Your task to perform on an android device: turn off airplane mode Image 0: 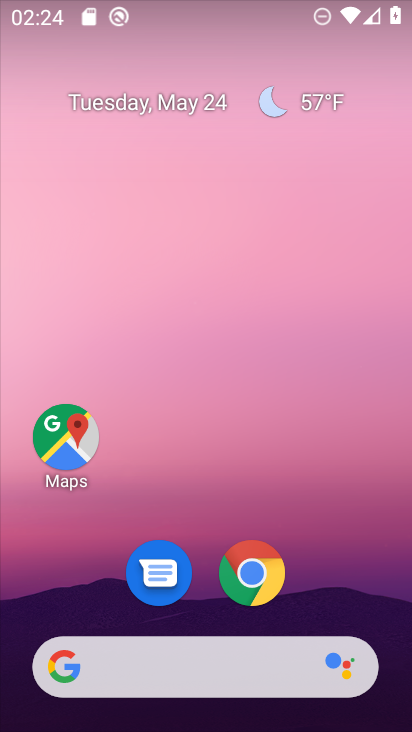
Step 0: drag from (315, 572) to (317, 249)
Your task to perform on an android device: turn off airplane mode Image 1: 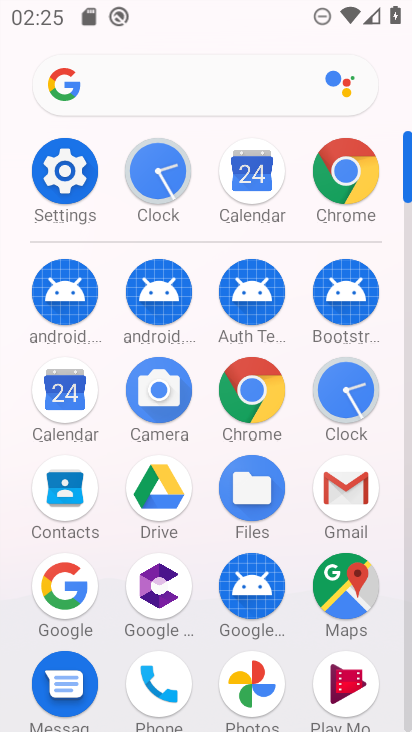
Step 1: click (56, 177)
Your task to perform on an android device: turn off airplane mode Image 2: 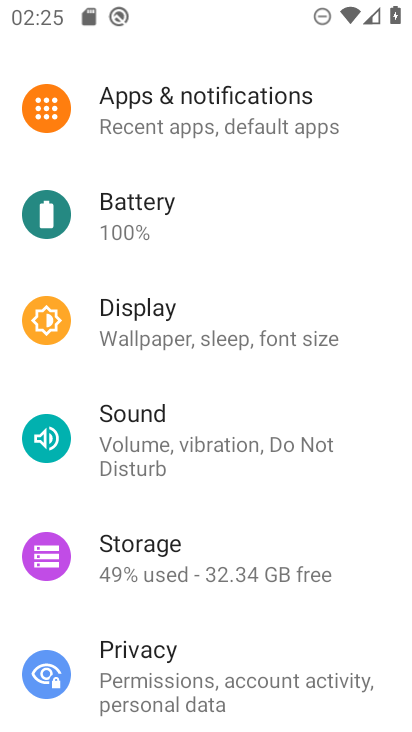
Step 2: drag from (284, 547) to (286, 293)
Your task to perform on an android device: turn off airplane mode Image 3: 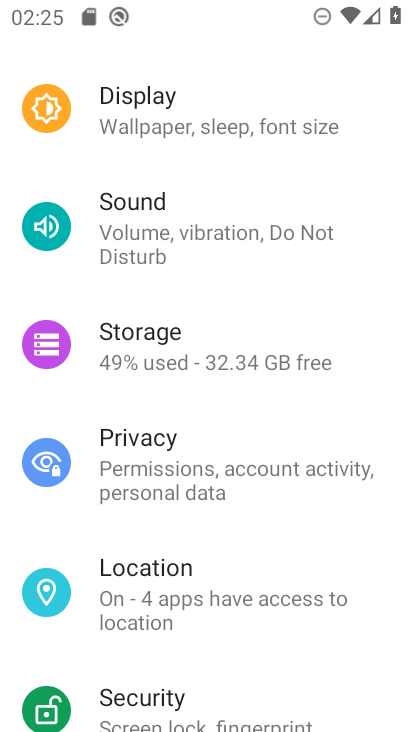
Step 3: drag from (309, 561) to (311, 276)
Your task to perform on an android device: turn off airplane mode Image 4: 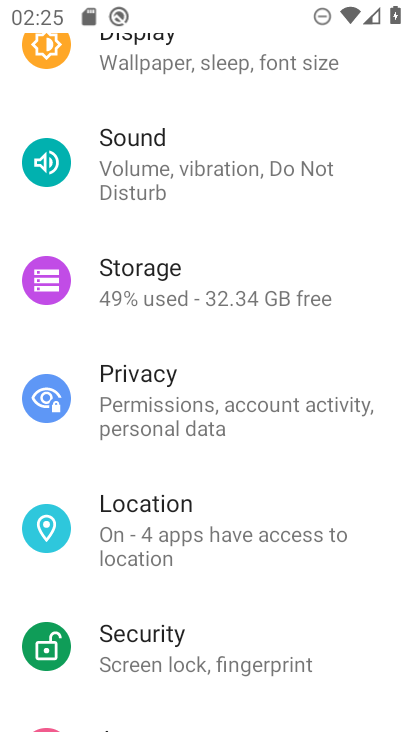
Step 4: drag from (301, 600) to (293, 314)
Your task to perform on an android device: turn off airplane mode Image 5: 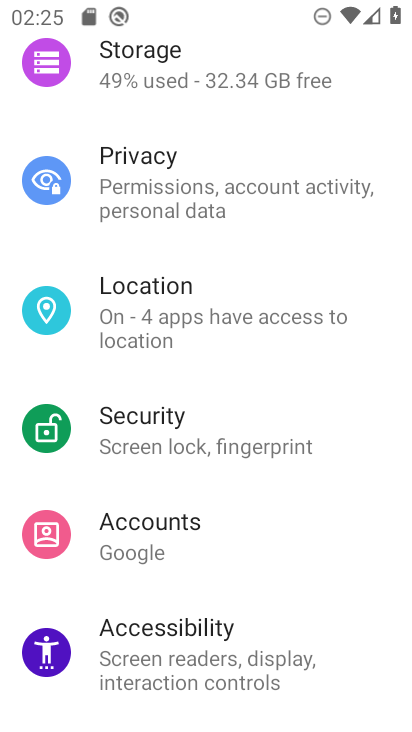
Step 5: drag from (240, 70) to (276, 731)
Your task to perform on an android device: turn off airplane mode Image 6: 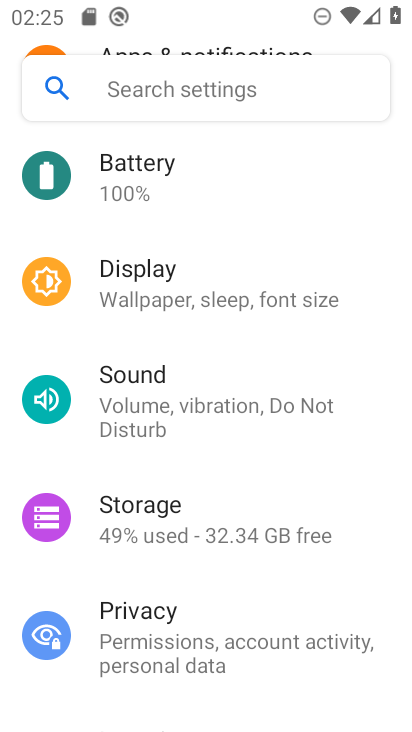
Step 6: drag from (221, 216) to (283, 727)
Your task to perform on an android device: turn off airplane mode Image 7: 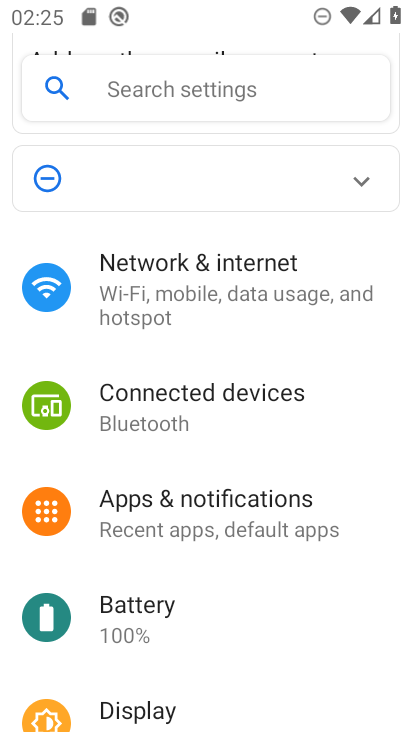
Step 7: click (174, 261)
Your task to perform on an android device: turn off airplane mode Image 8: 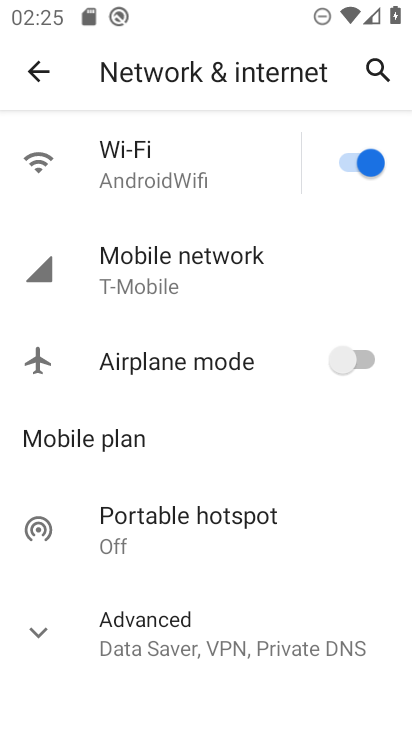
Step 8: task complete